Your task to perform on an android device: Open calendar and show me the fourth week of next month Image 0: 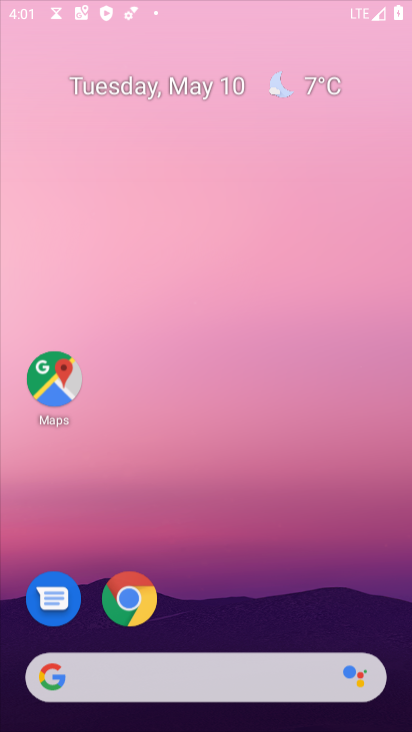
Step 0: press home button
Your task to perform on an android device: Open calendar and show me the fourth week of next month Image 1: 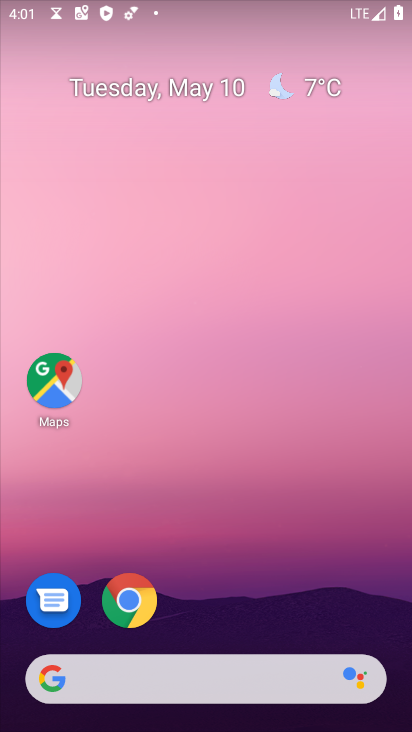
Step 1: drag from (230, 603) to (270, 349)
Your task to perform on an android device: Open calendar and show me the fourth week of next month Image 2: 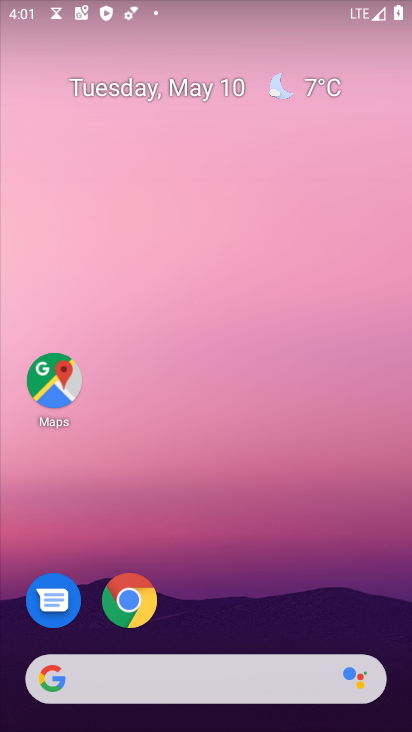
Step 2: drag from (286, 554) to (355, 218)
Your task to perform on an android device: Open calendar and show me the fourth week of next month Image 3: 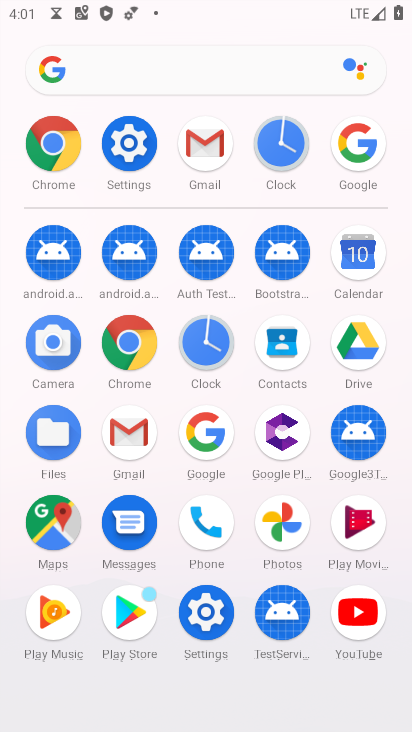
Step 3: click (361, 270)
Your task to perform on an android device: Open calendar and show me the fourth week of next month Image 4: 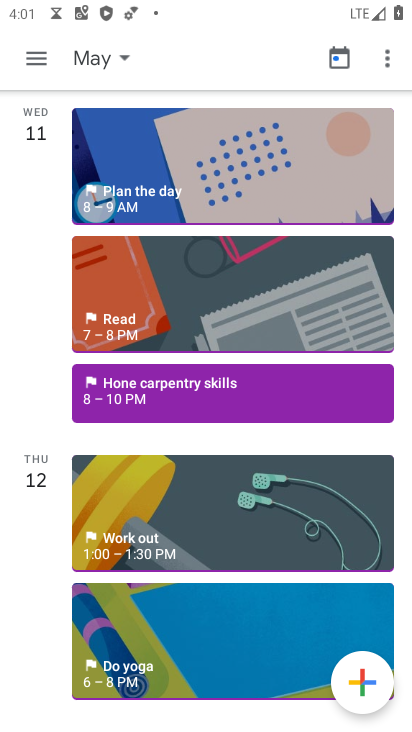
Step 4: click (37, 54)
Your task to perform on an android device: Open calendar and show me the fourth week of next month Image 5: 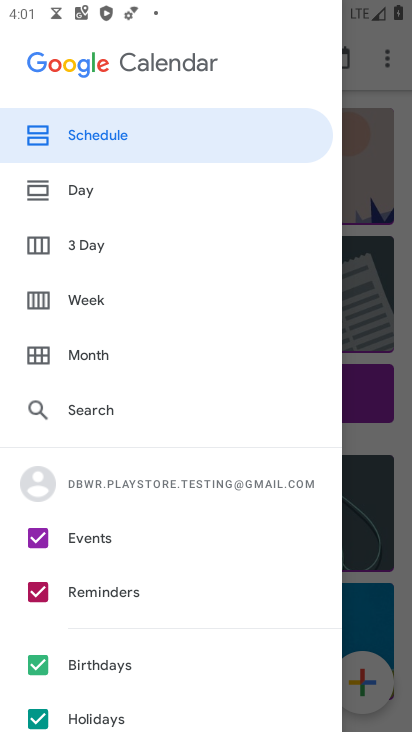
Step 5: click (91, 353)
Your task to perform on an android device: Open calendar and show me the fourth week of next month Image 6: 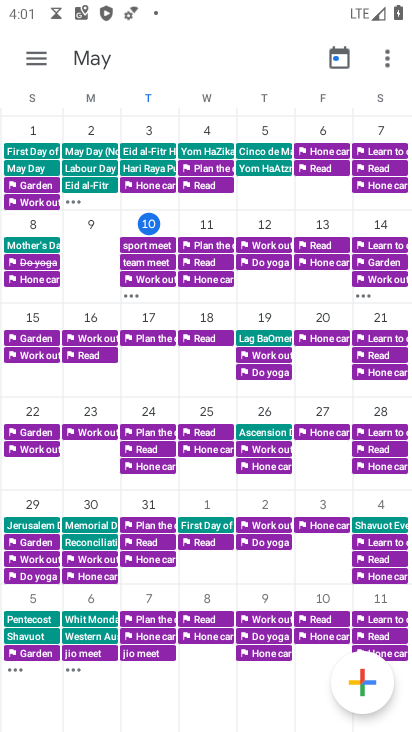
Step 6: task complete